Your task to perform on an android device: toggle improve location accuracy Image 0: 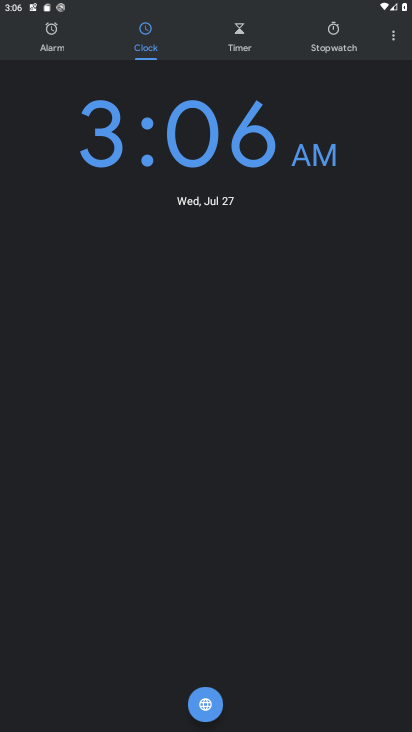
Step 0: press home button
Your task to perform on an android device: toggle improve location accuracy Image 1: 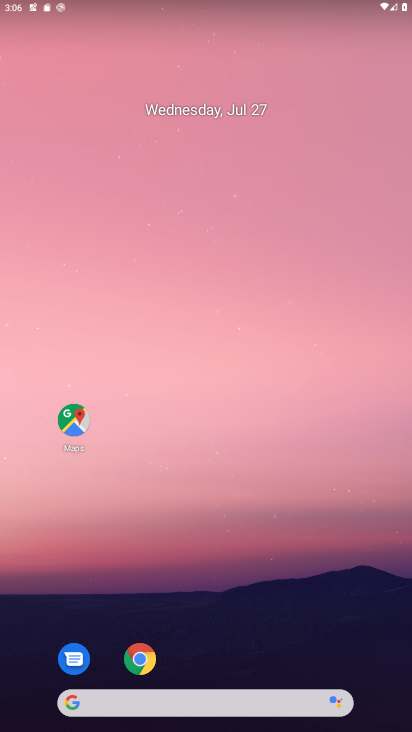
Step 1: drag from (246, 590) to (78, 90)
Your task to perform on an android device: toggle improve location accuracy Image 2: 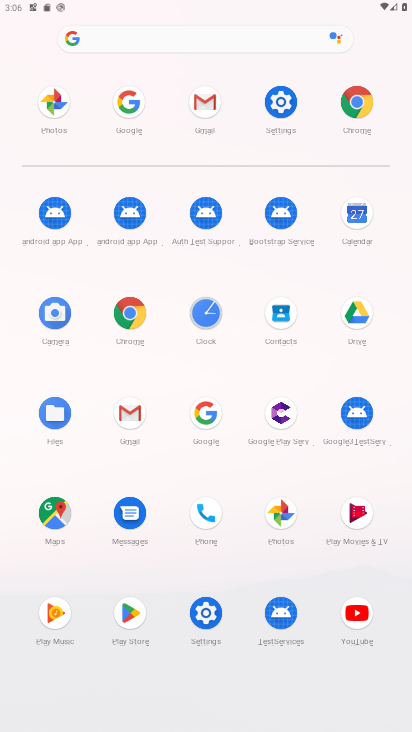
Step 2: click (283, 105)
Your task to perform on an android device: toggle improve location accuracy Image 3: 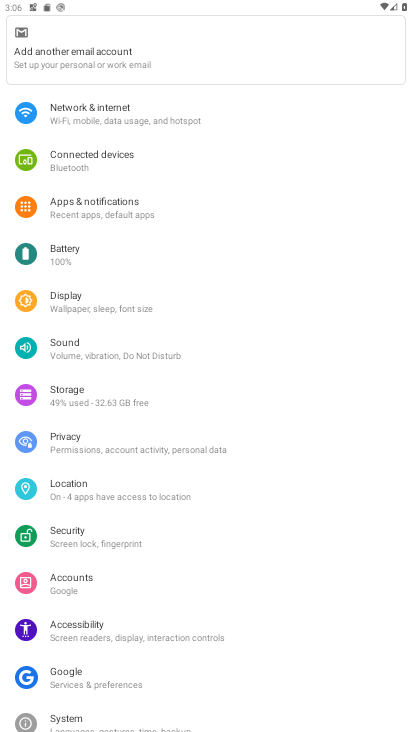
Step 3: click (119, 489)
Your task to perform on an android device: toggle improve location accuracy Image 4: 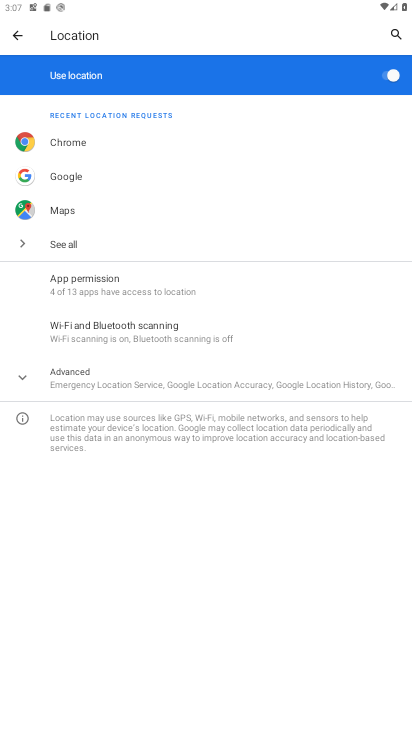
Step 4: click (128, 391)
Your task to perform on an android device: toggle improve location accuracy Image 5: 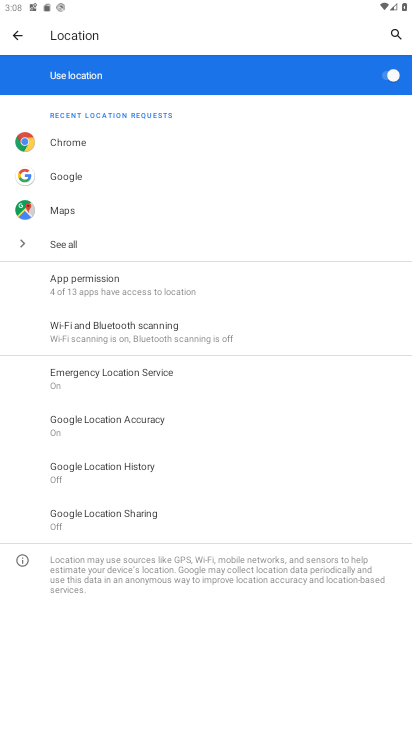
Step 5: click (137, 417)
Your task to perform on an android device: toggle improve location accuracy Image 6: 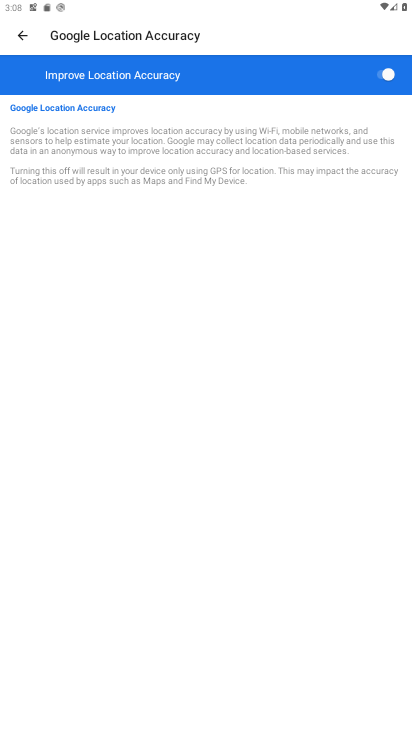
Step 6: click (378, 75)
Your task to perform on an android device: toggle improve location accuracy Image 7: 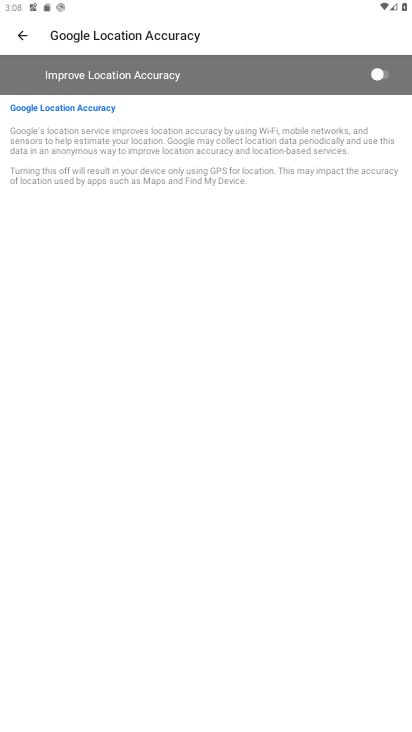
Step 7: task complete